Your task to perform on an android device: open app "WhatsApp Messenger" (install if not already installed) Image 0: 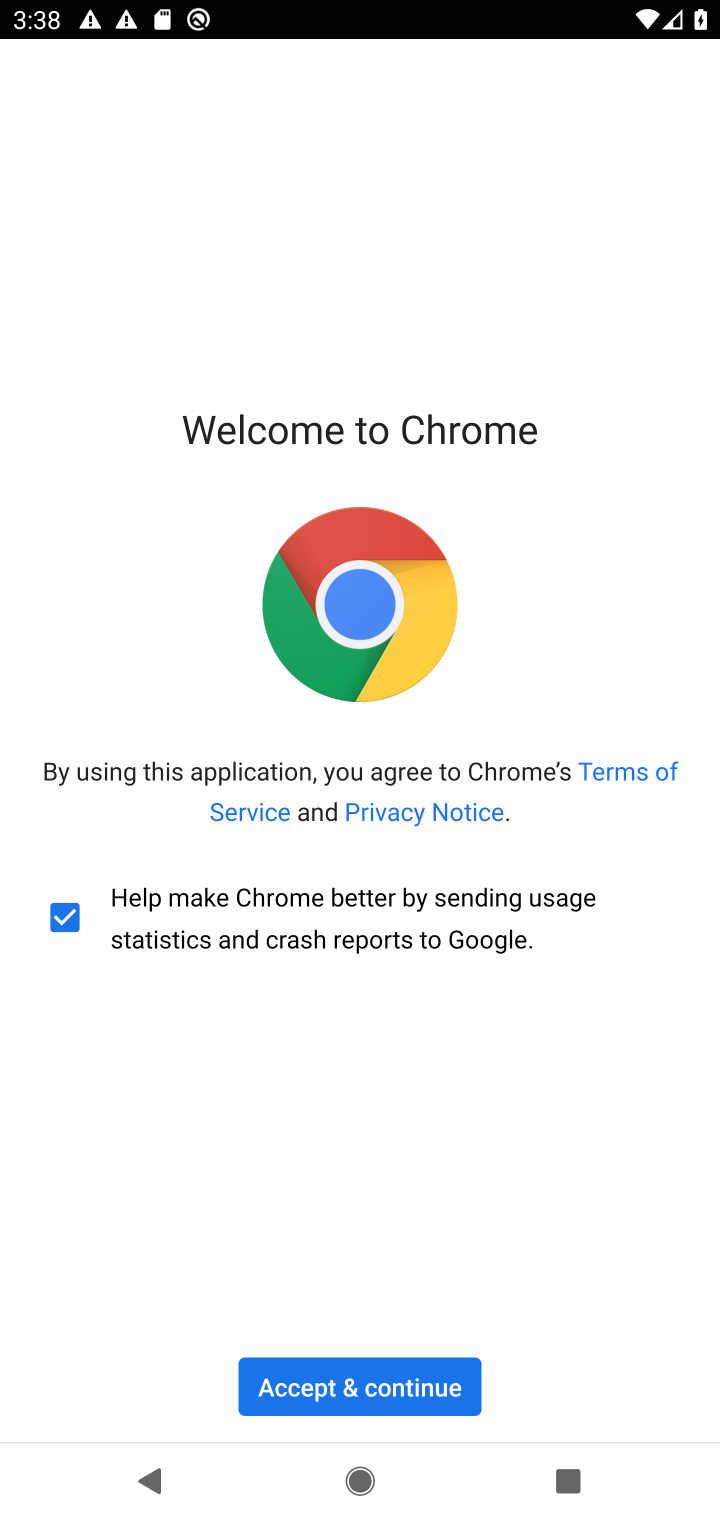
Step 0: press home button
Your task to perform on an android device: open app "WhatsApp Messenger" (install if not already installed) Image 1: 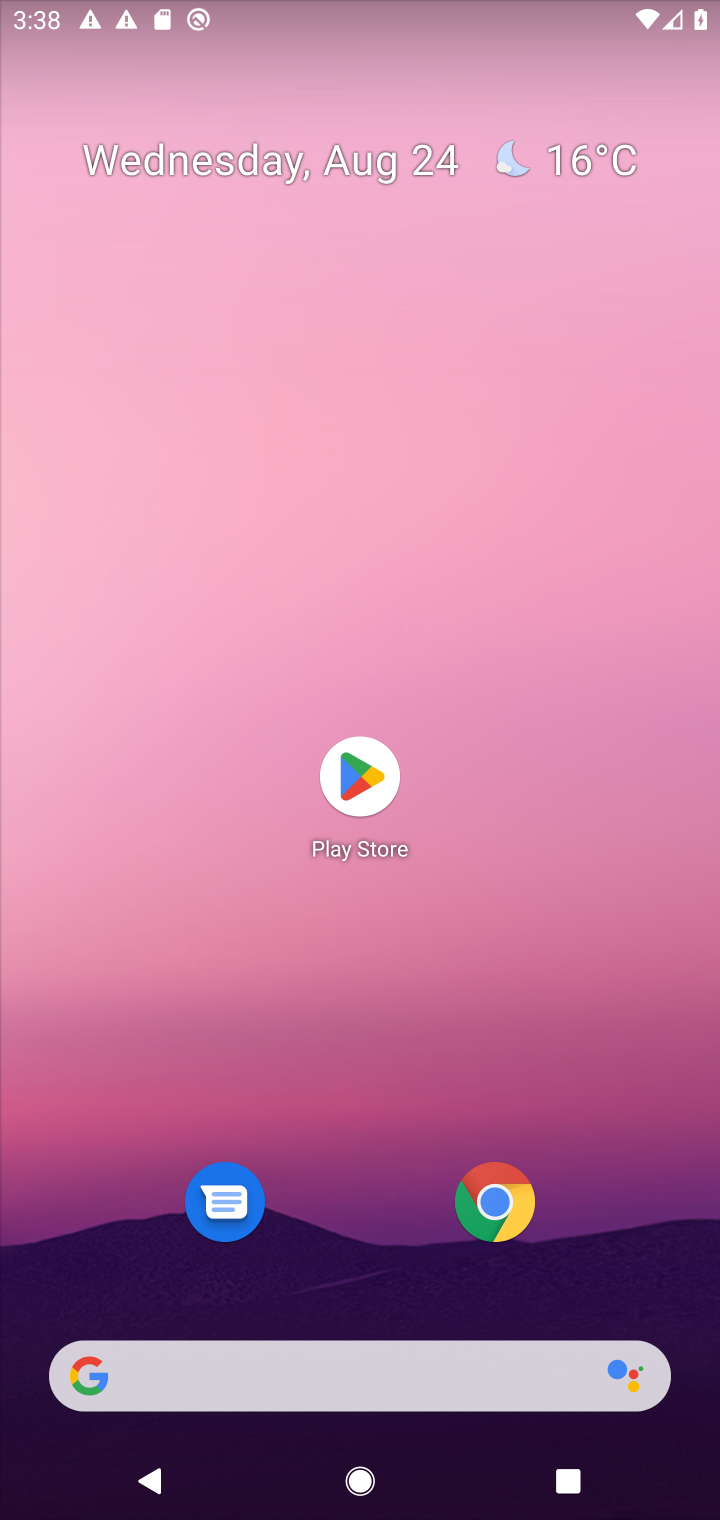
Step 1: click (366, 772)
Your task to perform on an android device: open app "WhatsApp Messenger" (install if not already installed) Image 2: 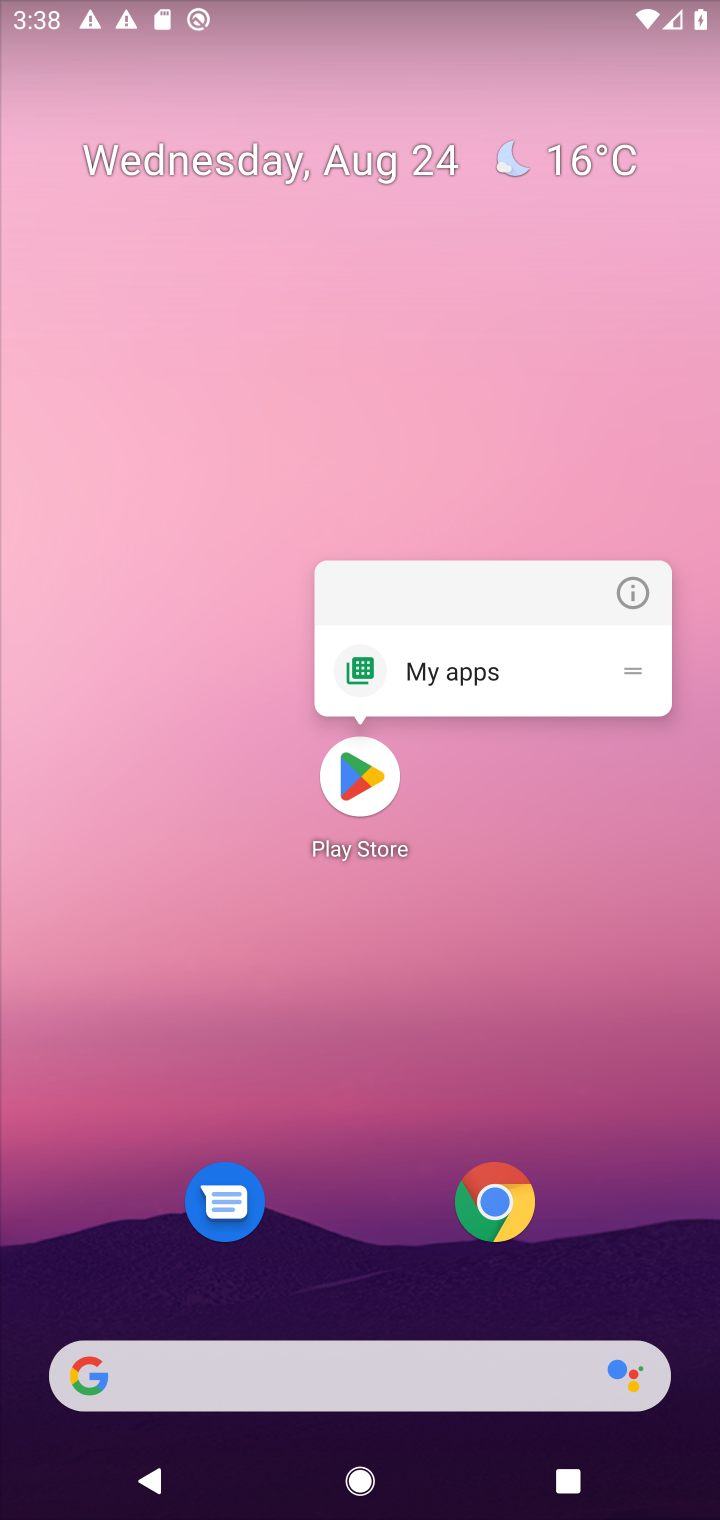
Step 2: click (366, 781)
Your task to perform on an android device: open app "WhatsApp Messenger" (install if not already installed) Image 3: 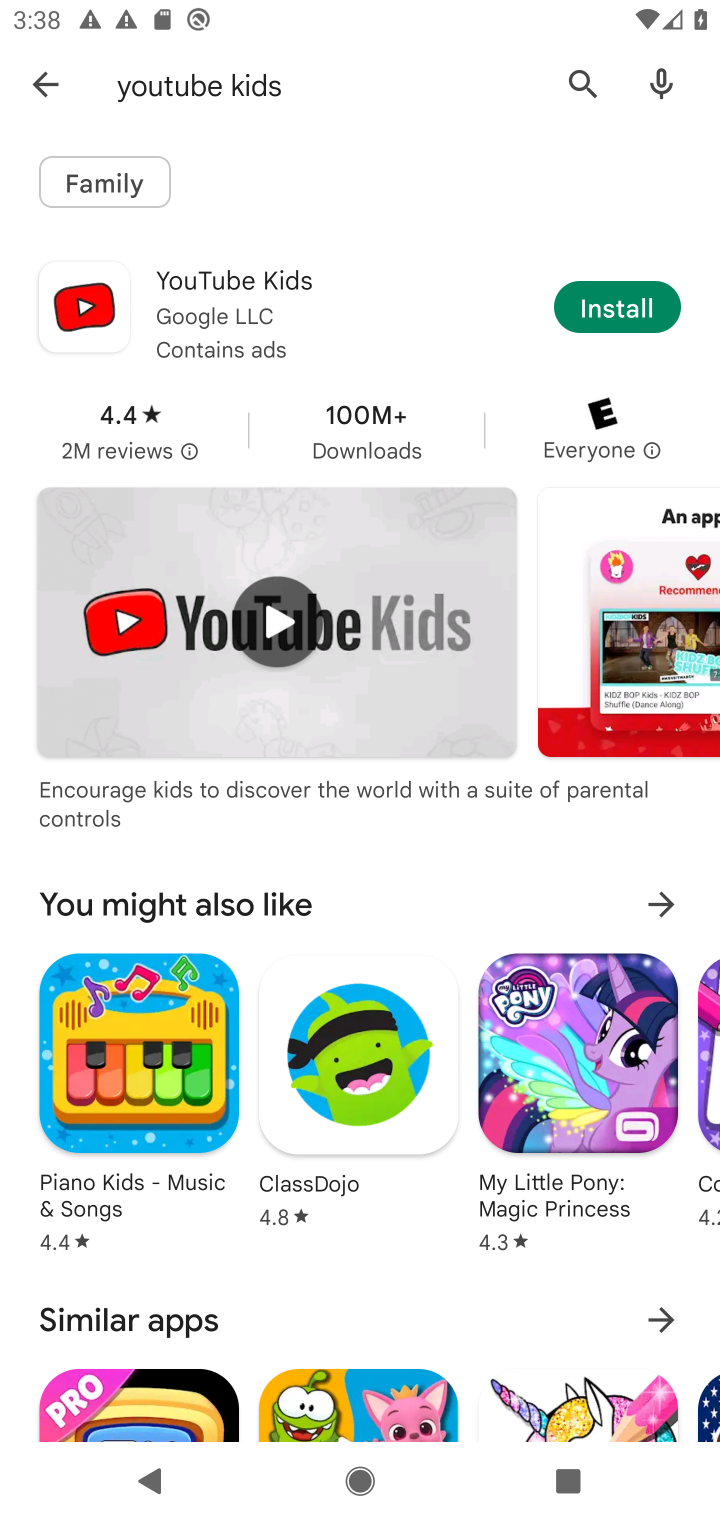
Step 3: click (580, 71)
Your task to perform on an android device: open app "WhatsApp Messenger" (install if not already installed) Image 4: 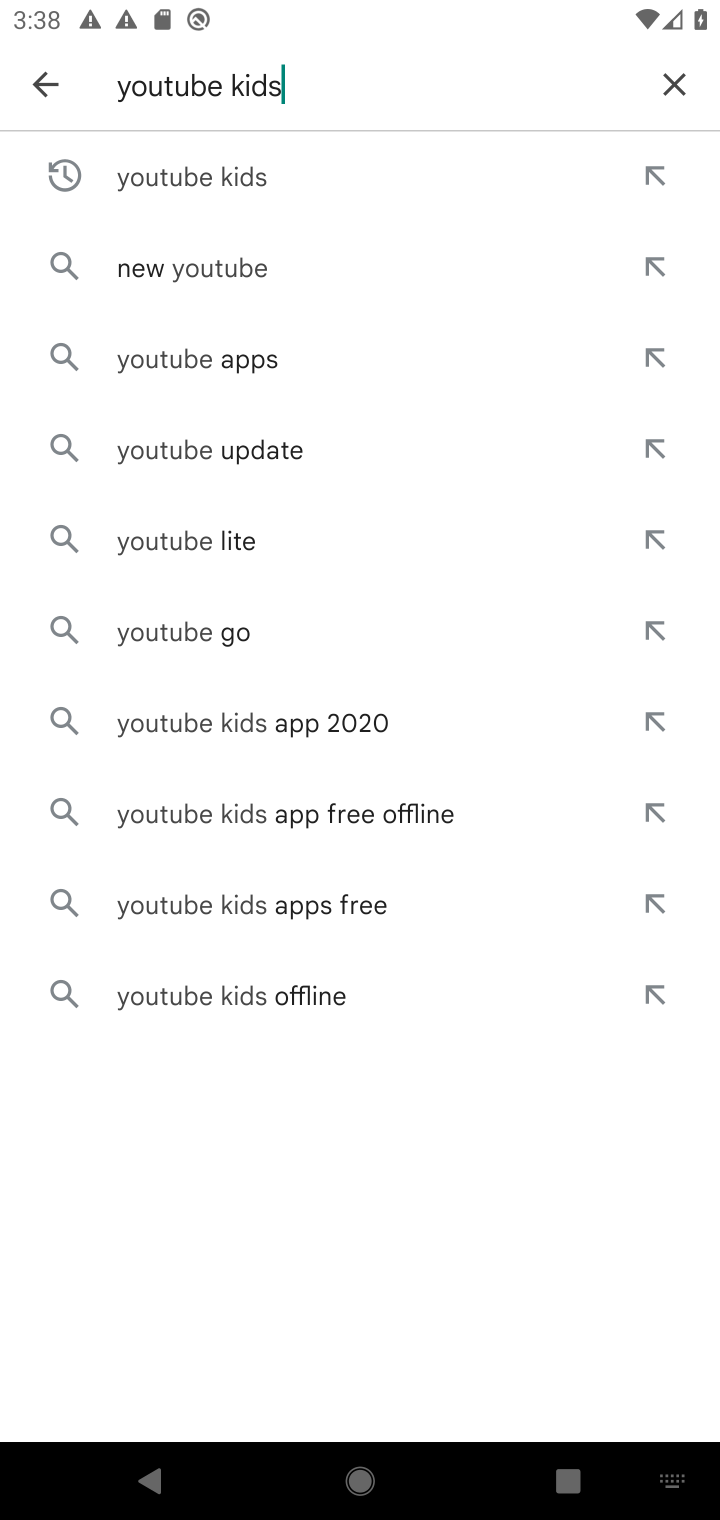
Step 4: click (672, 72)
Your task to perform on an android device: open app "WhatsApp Messenger" (install if not already installed) Image 5: 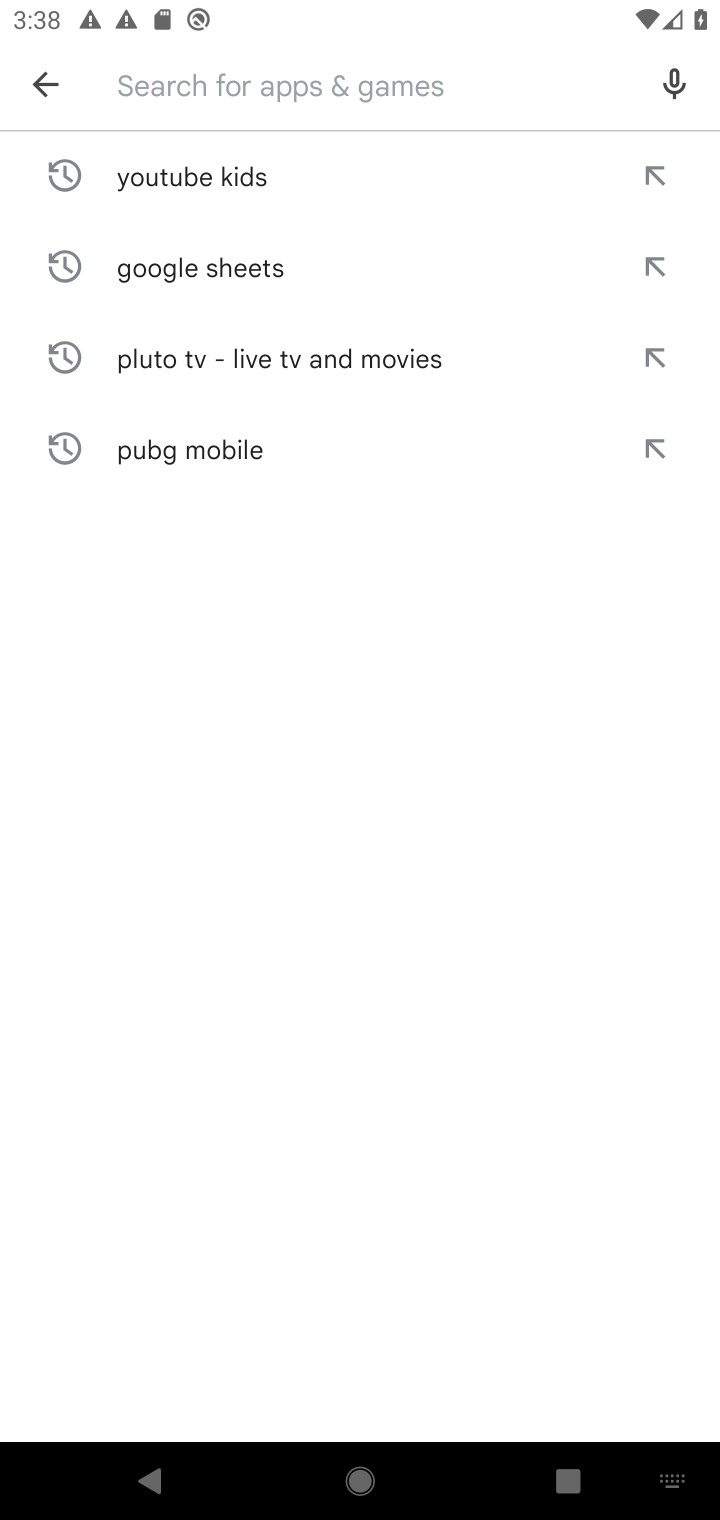
Step 5: type "WhatsApp Messenger"
Your task to perform on an android device: open app "WhatsApp Messenger" (install if not already installed) Image 6: 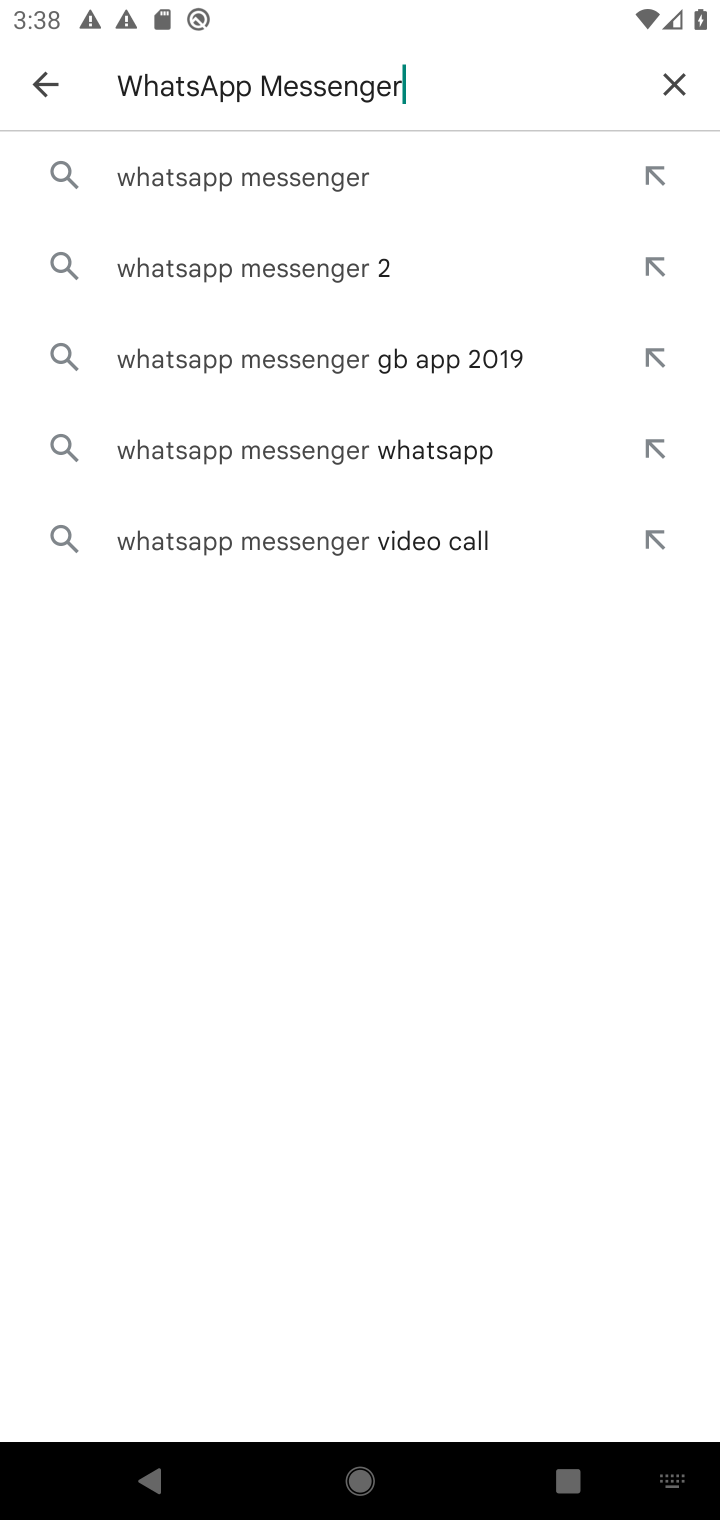
Step 6: click (332, 162)
Your task to perform on an android device: open app "WhatsApp Messenger" (install if not already installed) Image 7: 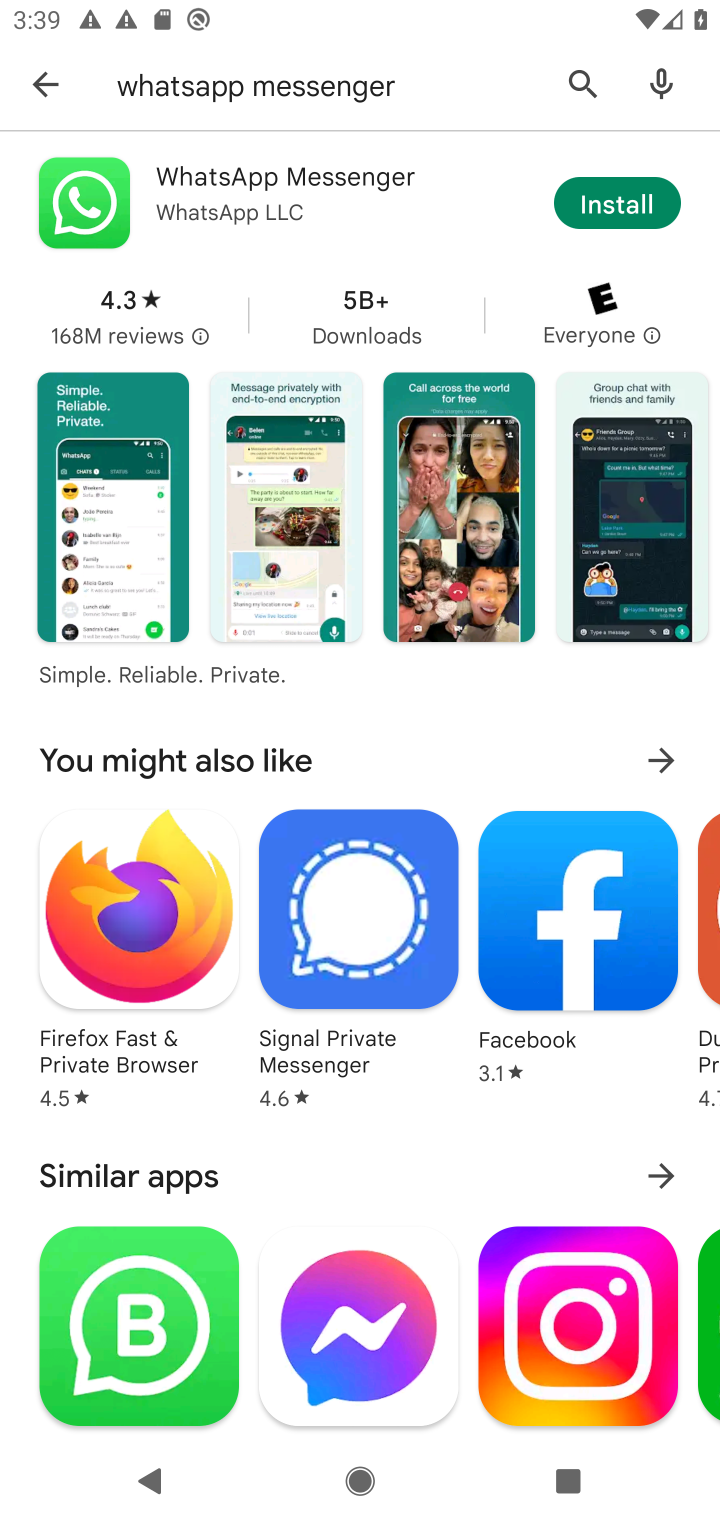
Step 7: click (595, 194)
Your task to perform on an android device: open app "WhatsApp Messenger" (install if not already installed) Image 8: 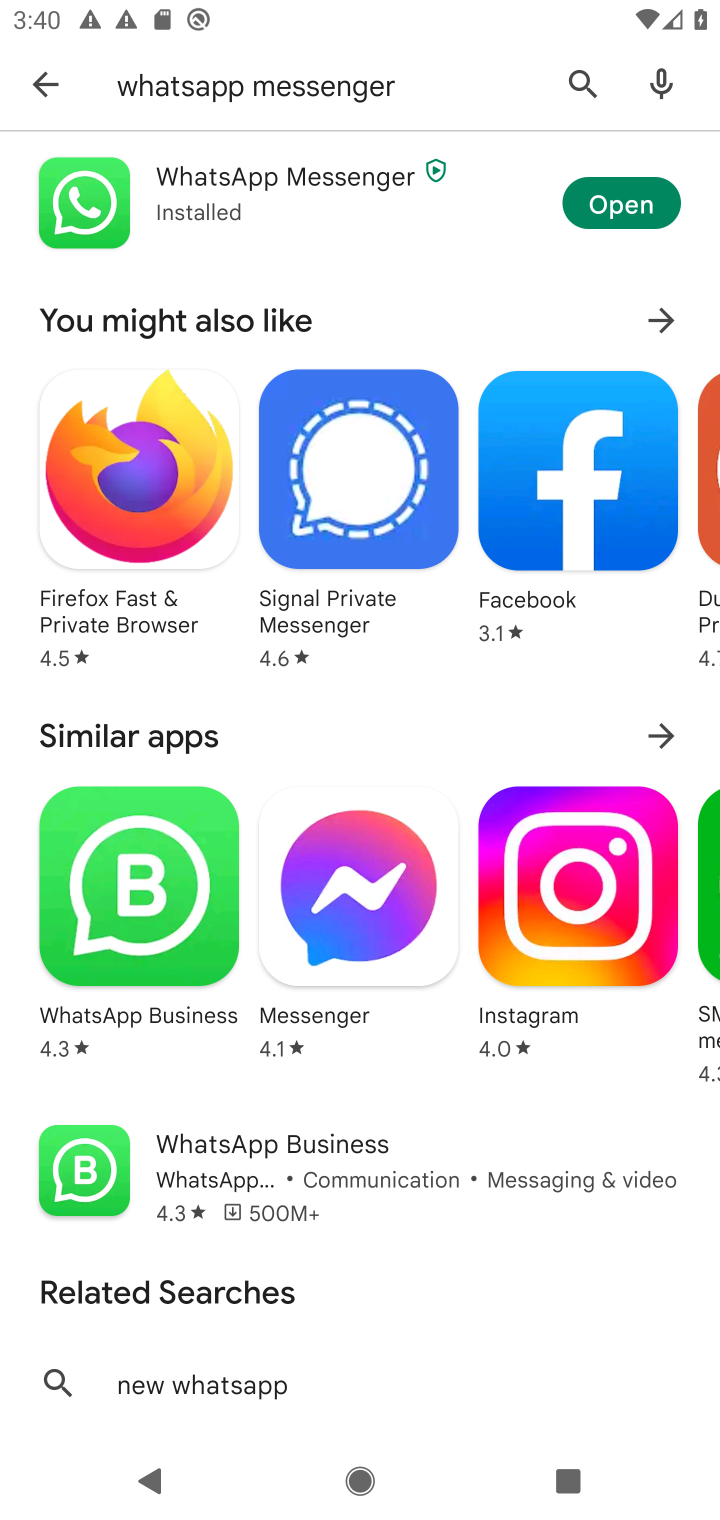
Step 8: click (616, 206)
Your task to perform on an android device: open app "WhatsApp Messenger" (install if not already installed) Image 9: 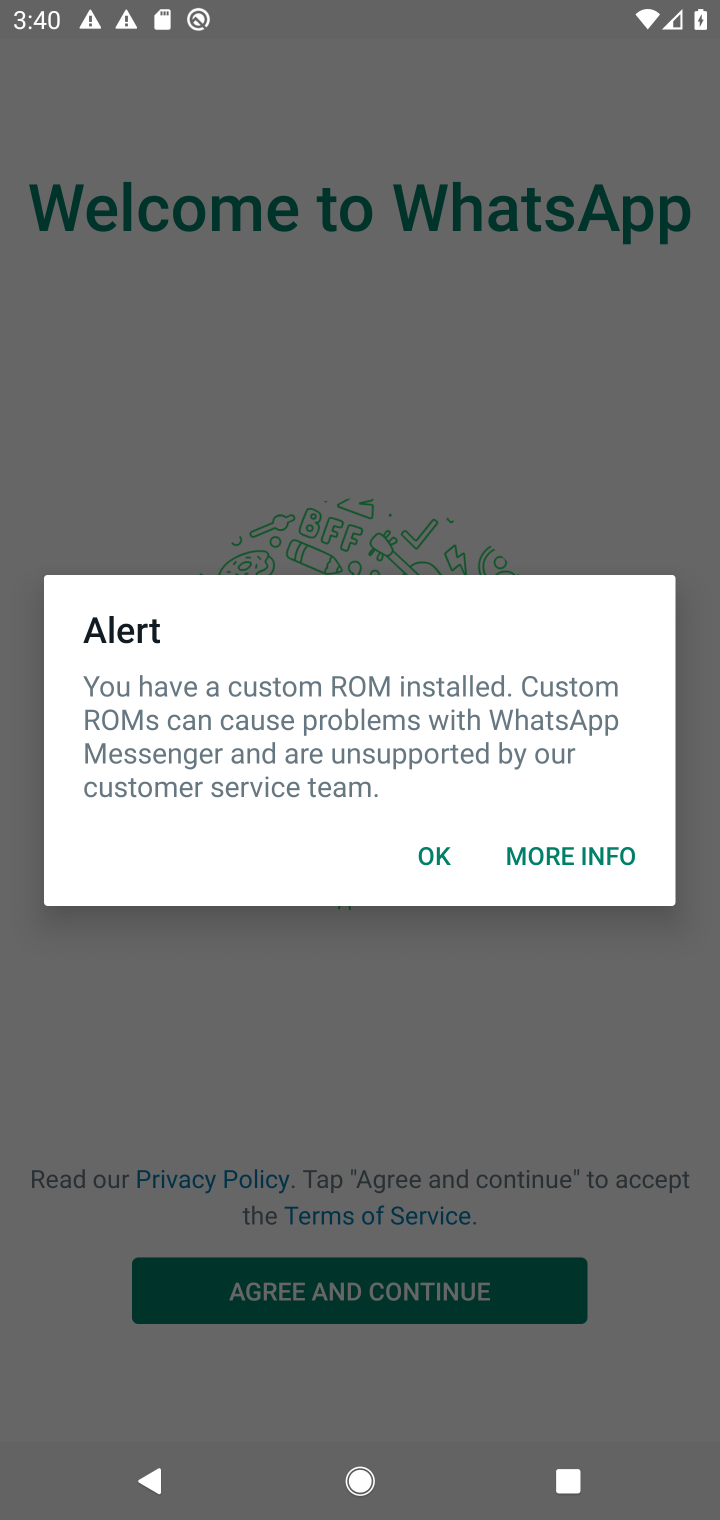
Step 9: task complete